Your task to perform on an android device: toggle airplane mode Image 0: 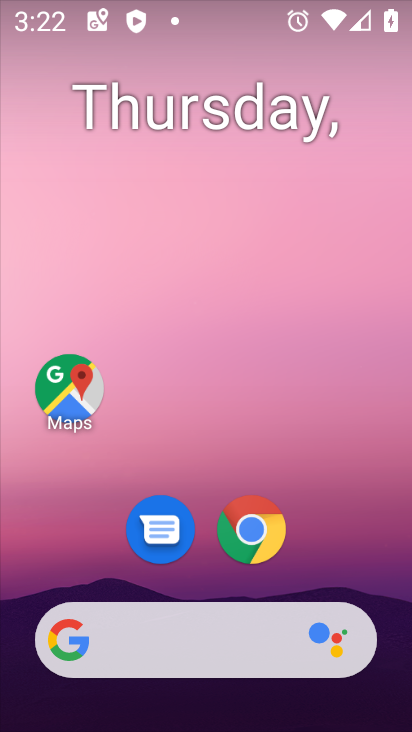
Step 0: drag from (321, 549) to (212, 26)
Your task to perform on an android device: toggle airplane mode Image 1: 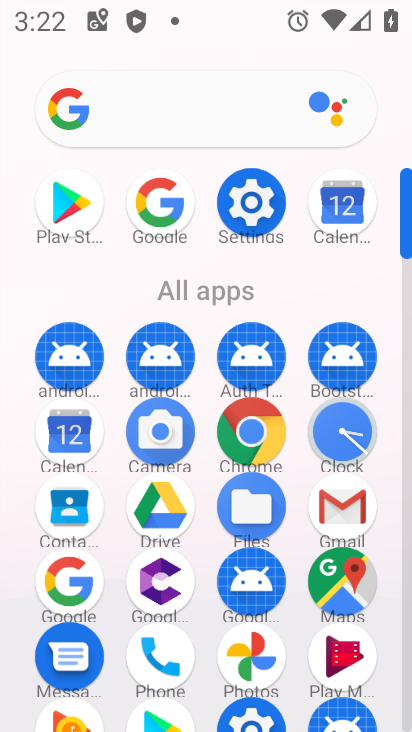
Step 1: click (251, 203)
Your task to perform on an android device: toggle airplane mode Image 2: 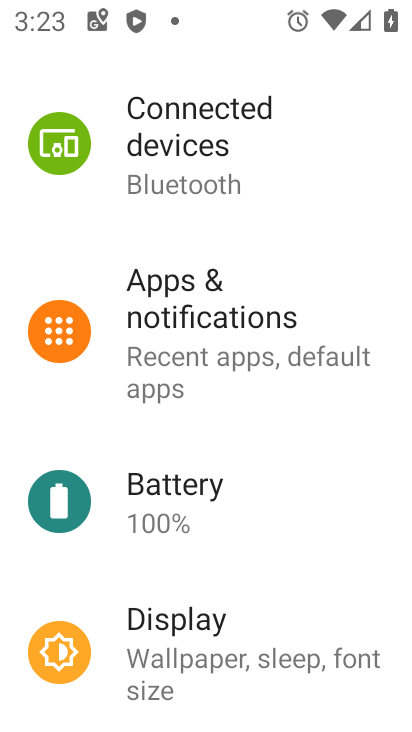
Step 2: drag from (251, 203) to (244, 405)
Your task to perform on an android device: toggle airplane mode Image 3: 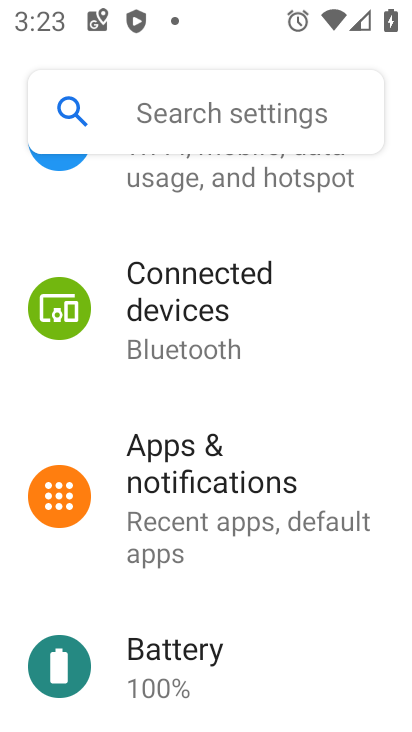
Step 3: drag from (210, 242) to (232, 490)
Your task to perform on an android device: toggle airplane mode Image 4: 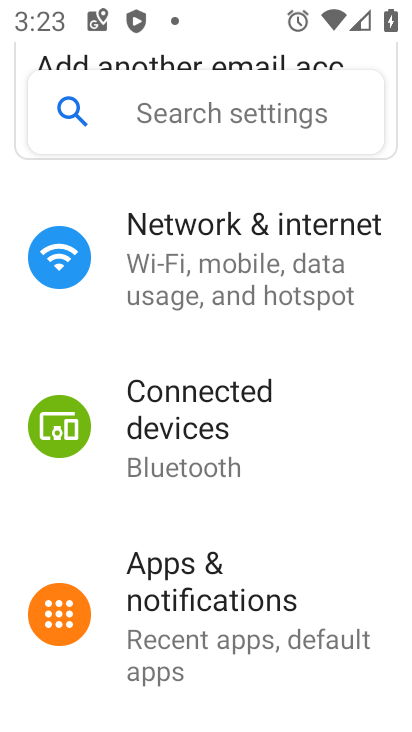
Step 4: click (209, 239)
Your task to perform on an android device: toggle airplane mode Image 5: 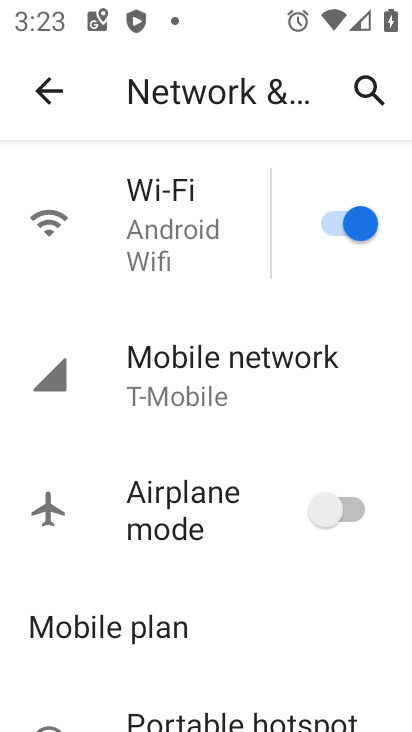
Step 5: click (308, 519)
Your task to perform on an android device: toggle airplane mode Image 6: 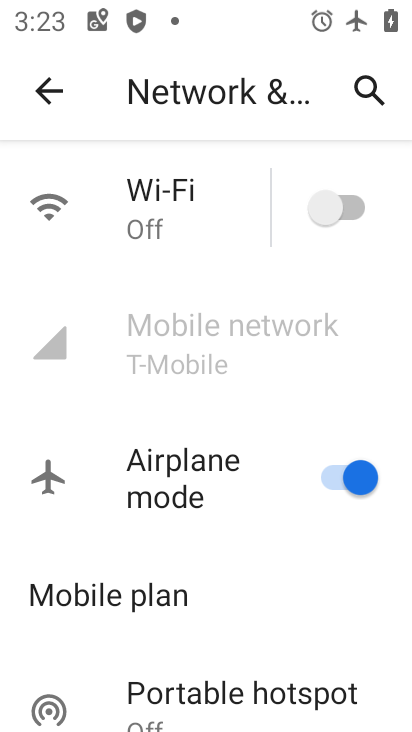
Step 6: task complete